Your task to perform on an android device: install app "Reddit" Image 0: 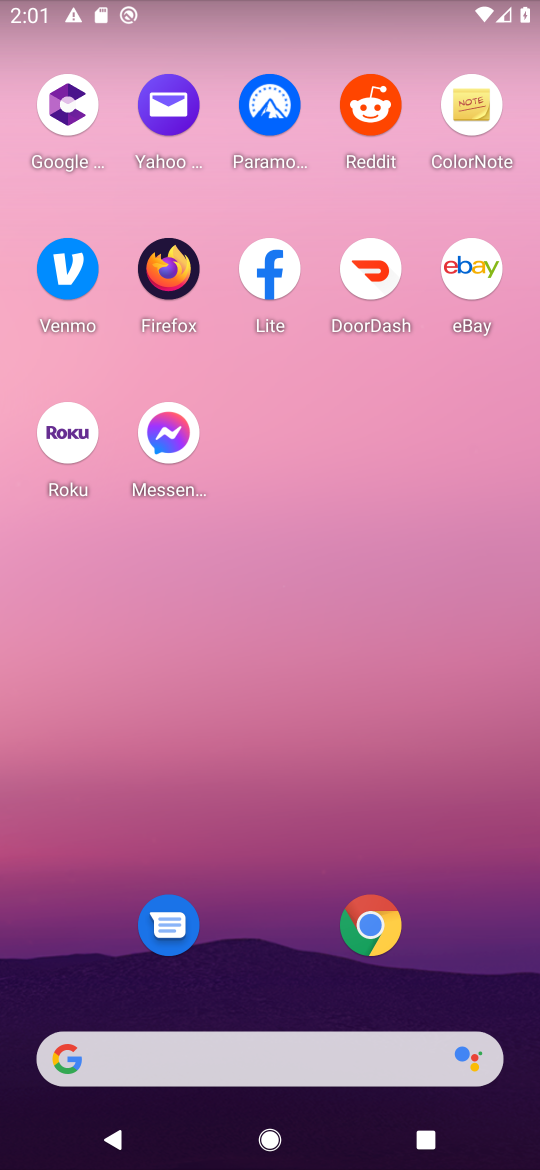
Step 0: drag from (188, 933) to (178, 310)
Your task to perform on an android device: install app "Reddit" Image 1: 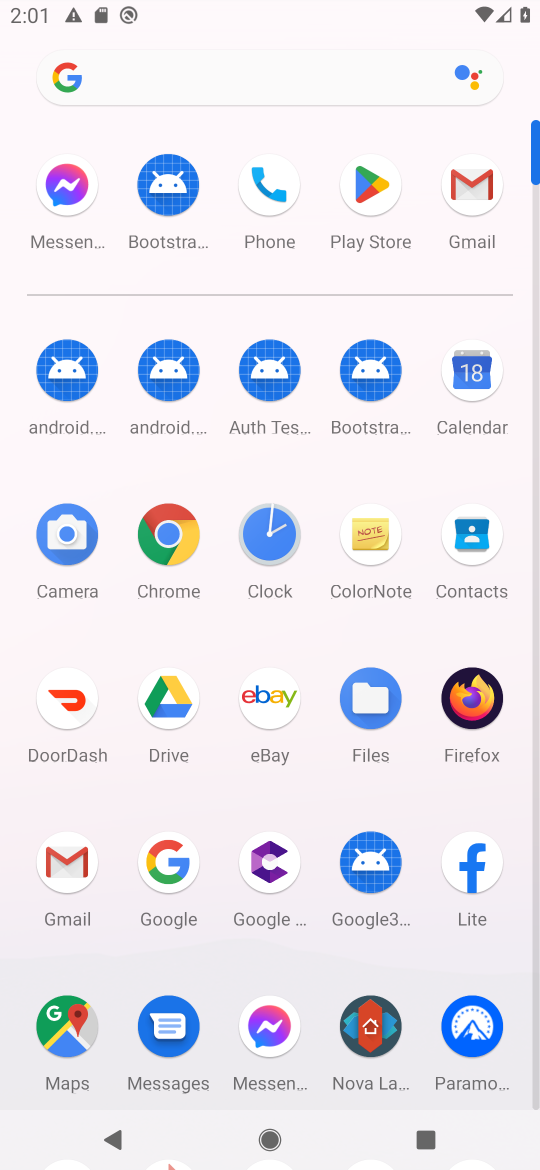
Step 1: click (365, 194)
Your task to perform on an android device: install app "Reddit" Image 2: 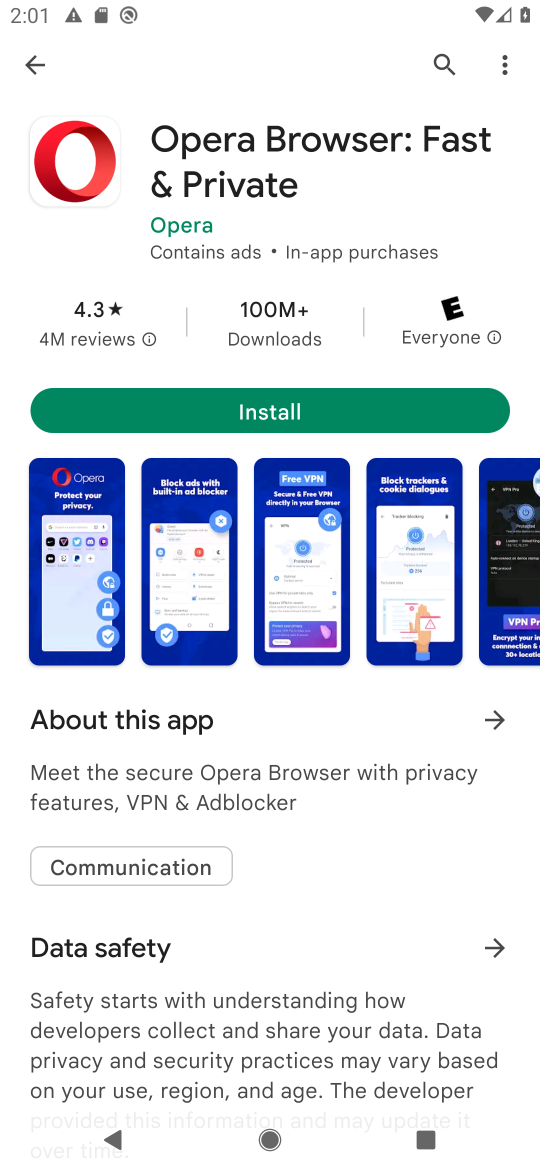
Step 2: click (41, 58)
Your task to perform on an android device: install app "Reddit" Image 3: 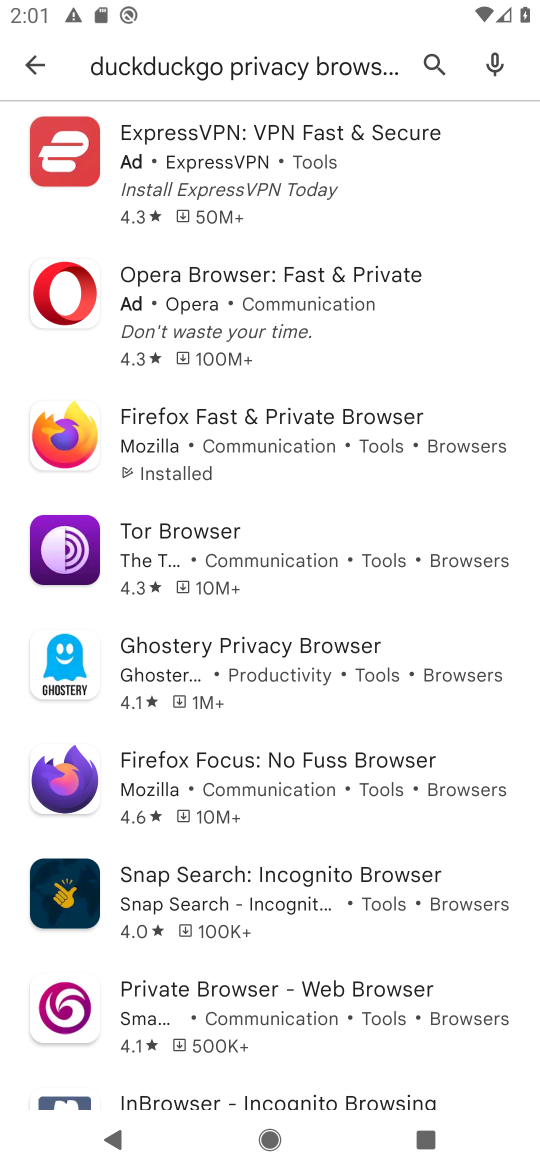
Step 3: click (41, 70)
Your task to perform on an android device: install app "Reddit" Image 4: 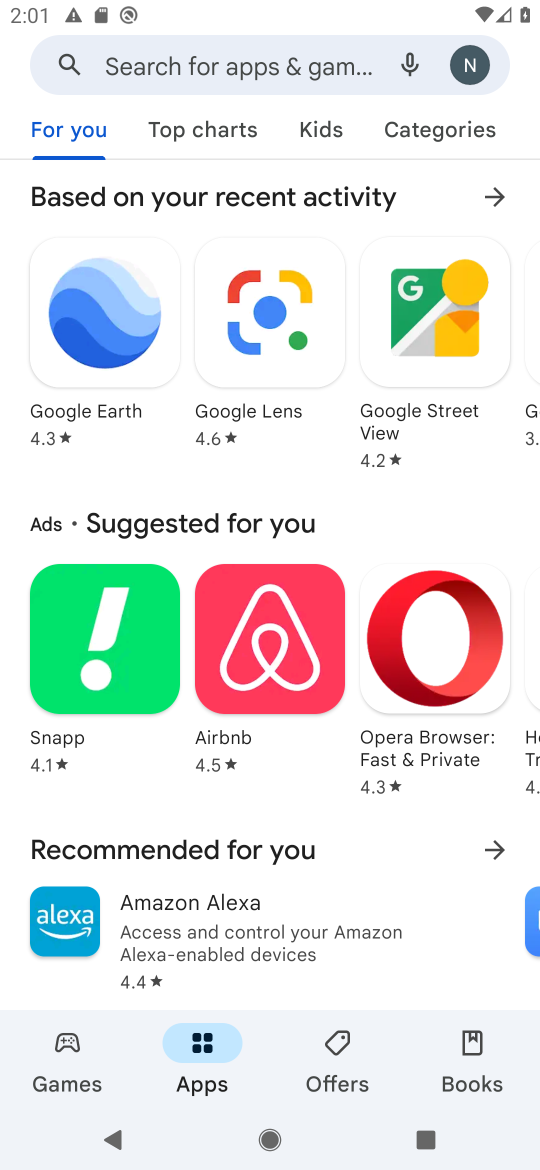
Step 4: click (199, 64)
Your task to perform on an android device: install app "Reddit" Image 5: 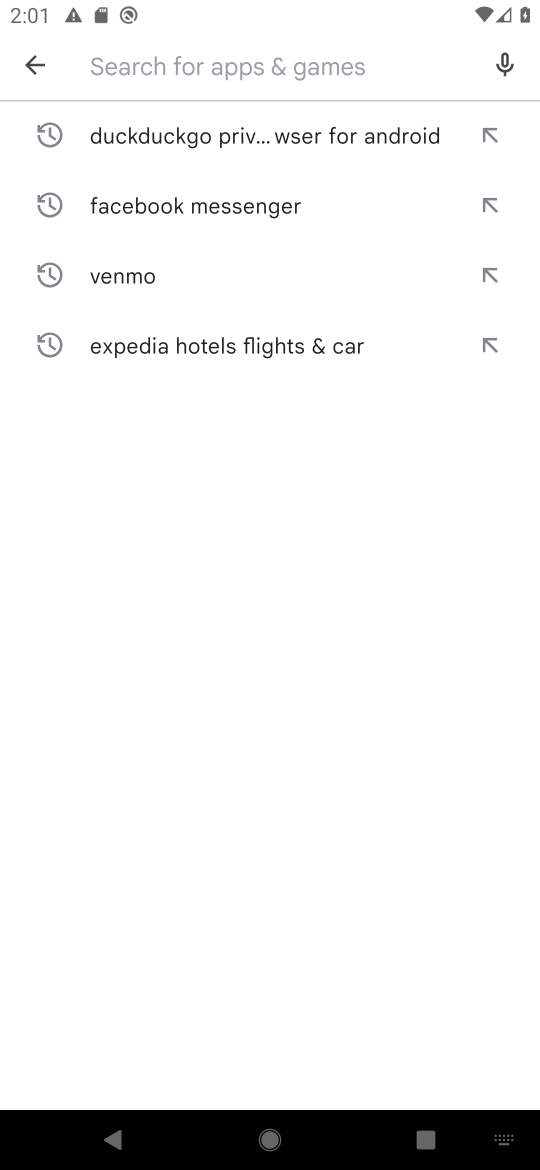
Step 5: type "Reddit"
Your task to perform on an android device: install app "Reddit" Image 6: 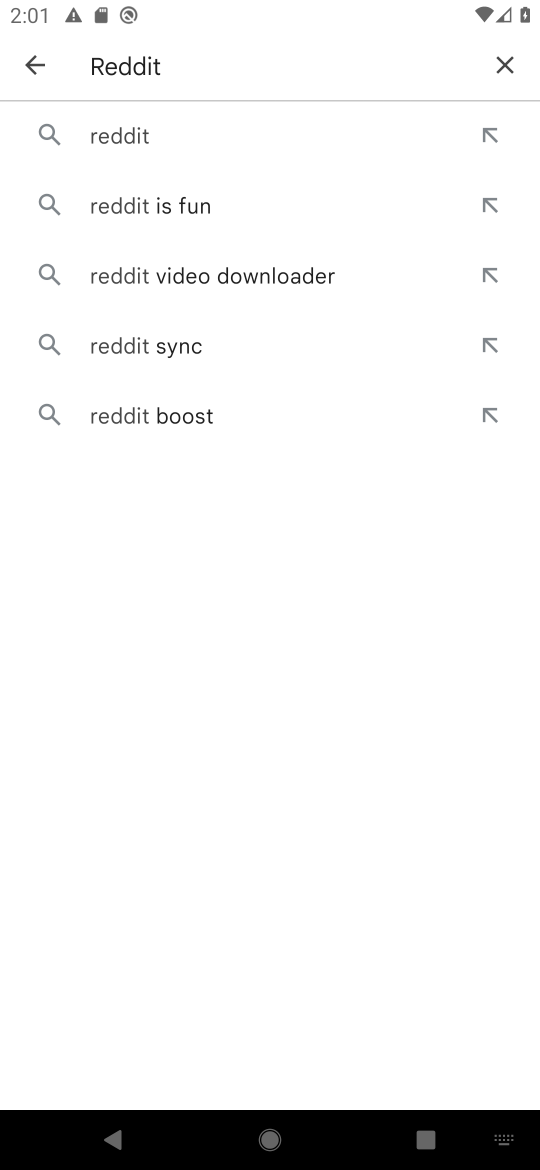
Step 6: click (127, 137)
Your task to perform on an android device: install app "Reddit" Image 7: 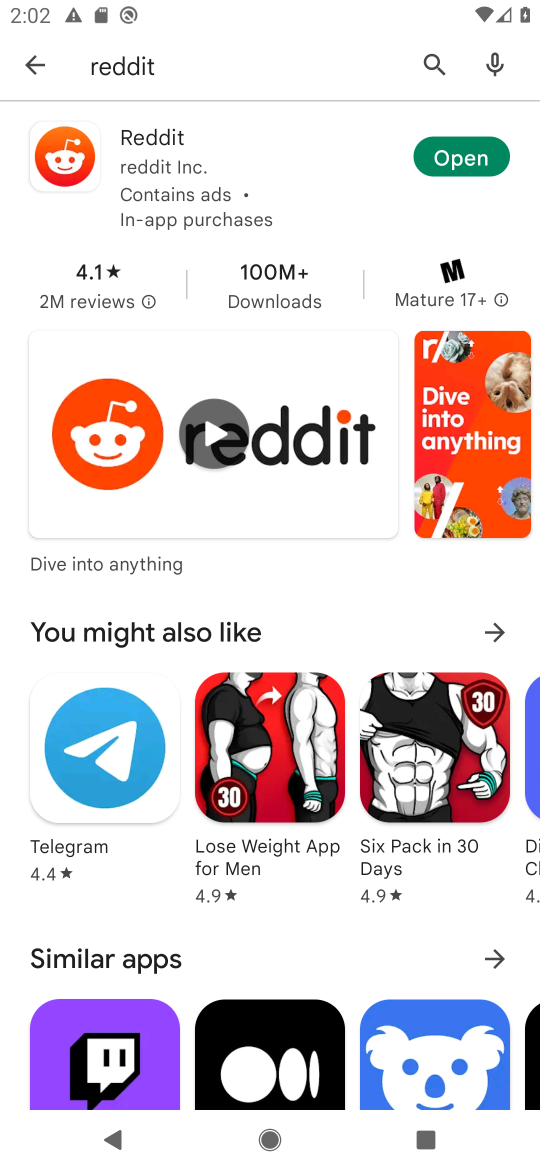
Step 7: click (455, 161)
Your task to perform on an android device: install app "Reddit" Image 8: 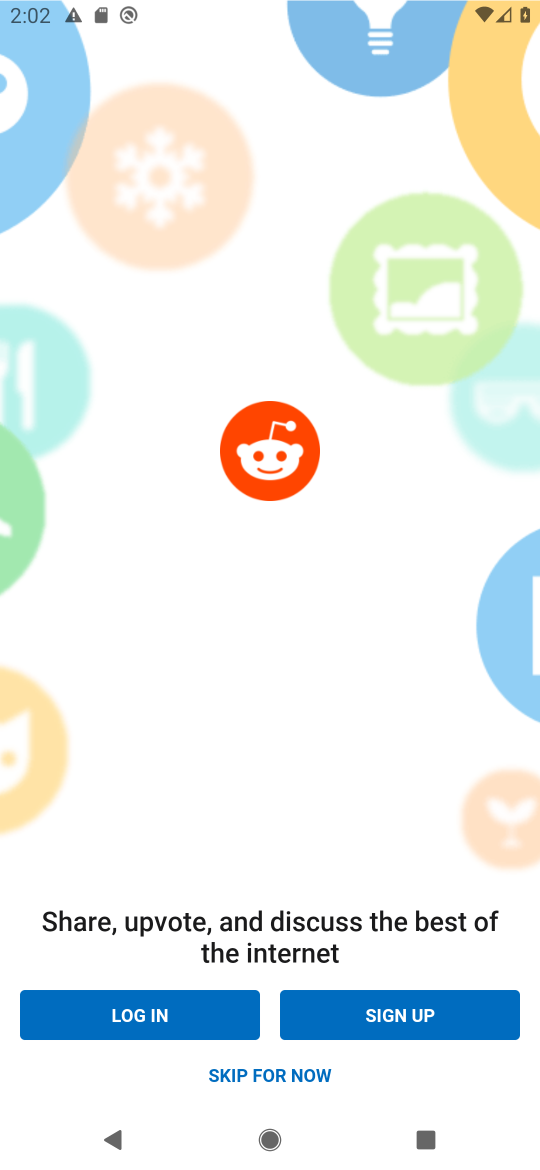
Step 8: click (220, 1077)
Your task to perform on an android device: install app "Reddit" Image 9: 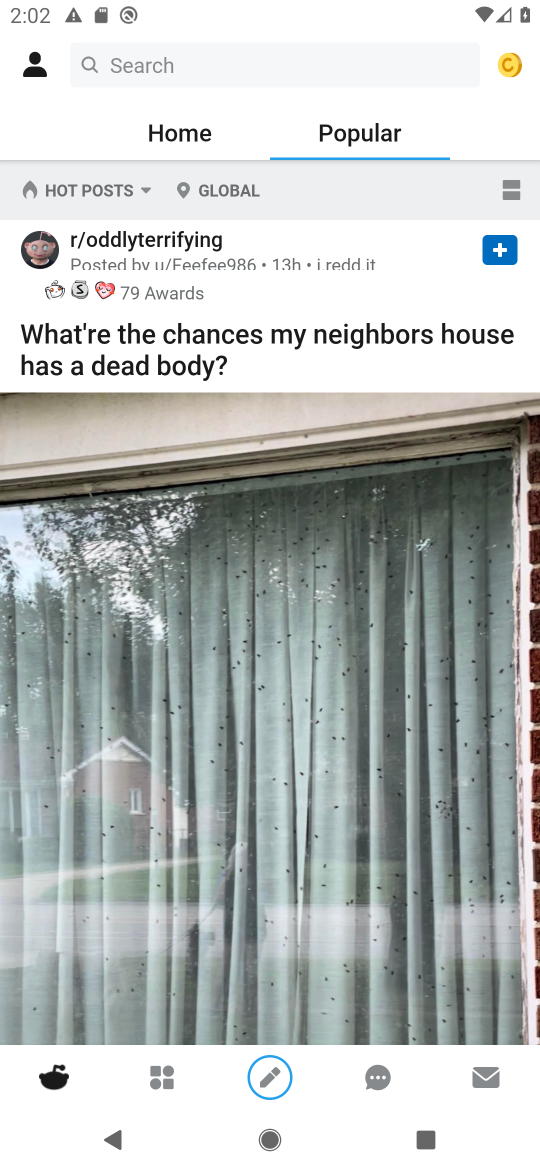
Step 9: task complete